Your task to perform on an android device: turn on showing notifications on the lock screen Image 0: 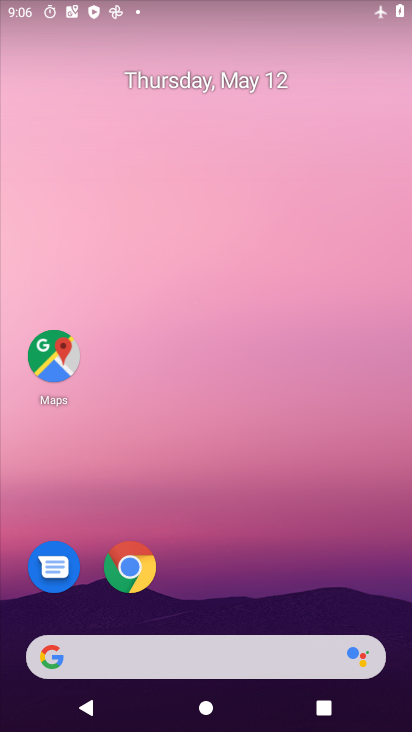
Step 0: drag from (222, 670) to (259, 345)
Your task to perform on an android device: turn on showing notifications on the lock screen Image 1: 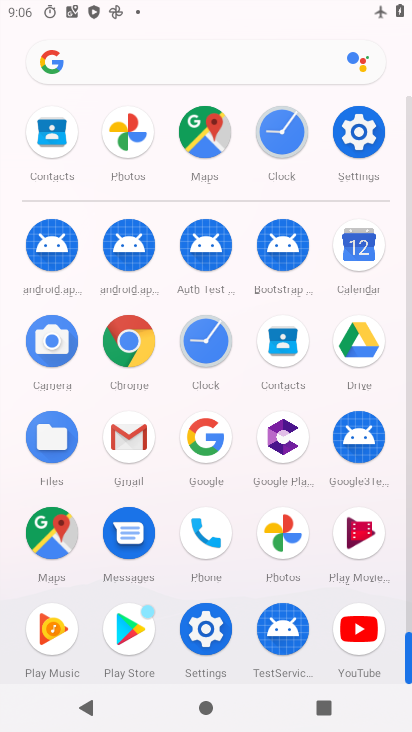
Step 1: click (363, 161)
Your task to perform on an android device: turn on showing notifications on the lock screen Image 2: 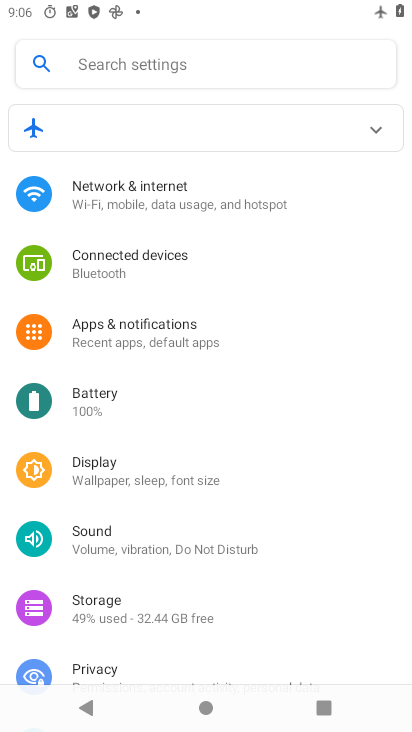
Step 2: click (239, 342)
Your task to perform on an android device: turn on showing notifications on the lock screen Image 3: 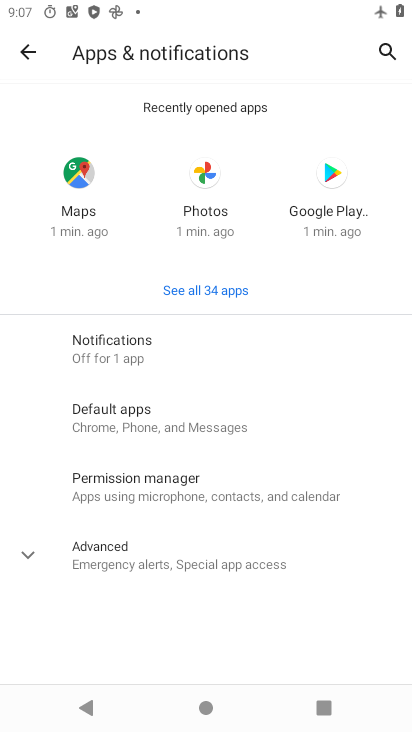
Step 3: click (243, 357)
Your task to perform on an android device: turn on showing notifications on the lock screen Image 4: 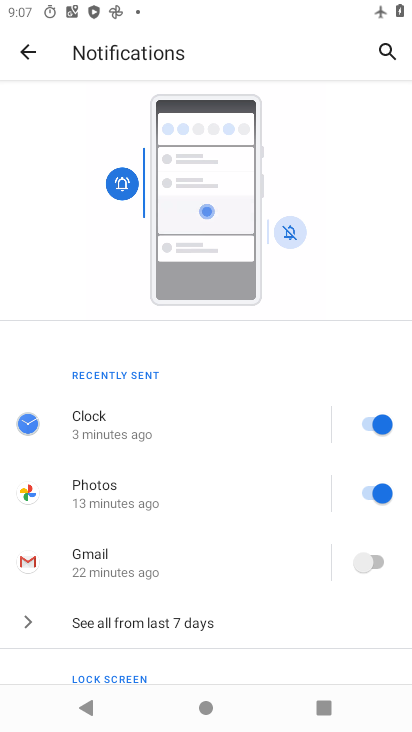
Step 4: drag from (197, 562) to (242, 261)
Your task to perform on an android device: turn on showing notifications on the lock screen Image 5: 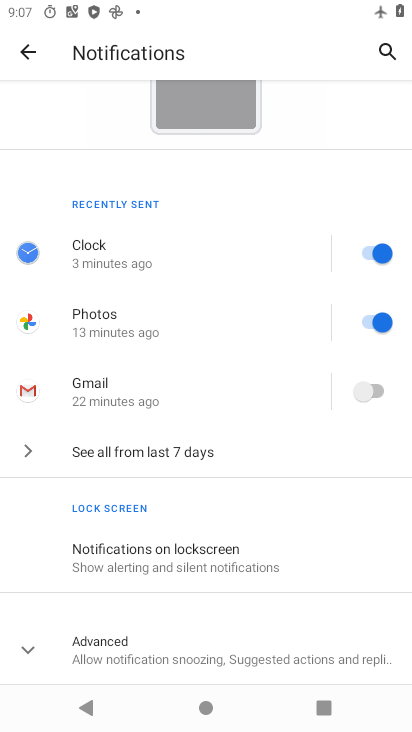
Step 5: click (242, 560)
Your task to perform on an android device: turn on showing notifications on the lock screen Image 6: 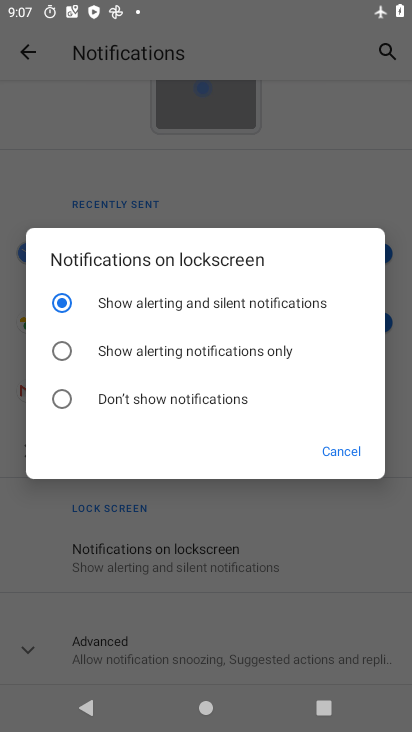
Step 6: task complete